Your task to perform on an android device: turn on translation in the chrome app Image 0: 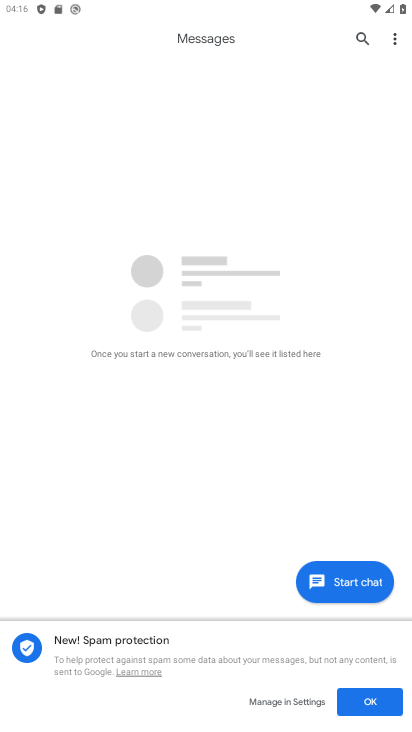
Step 0: press home button
Your task to perform on an android device: turn on translation in the chrome app Image 1: 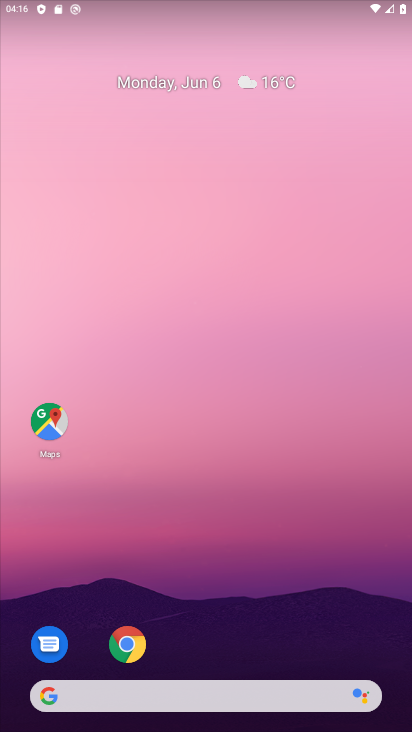
Step 1: click (130, 642)
Your task to perform on an android device: turn on translation in the chrome app Image 2: 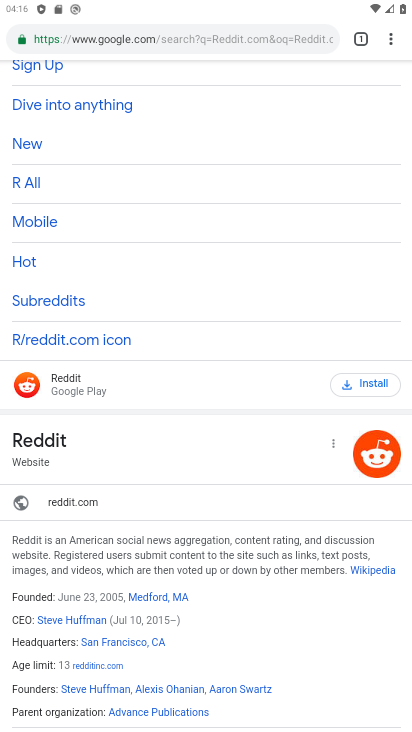
Step 2: click (392, 31)
Your task to perform on an android device: turn on translation in the chrome app Image 3: 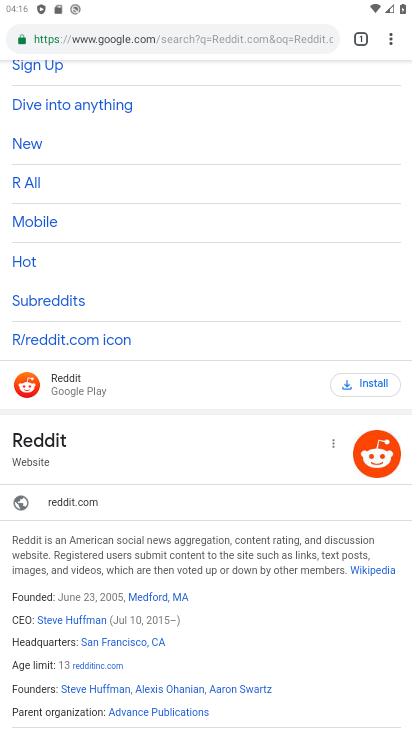
Step 3: click (392, 34)
Your task to perform on an android device: turn on translation in the chrome app Image 4: 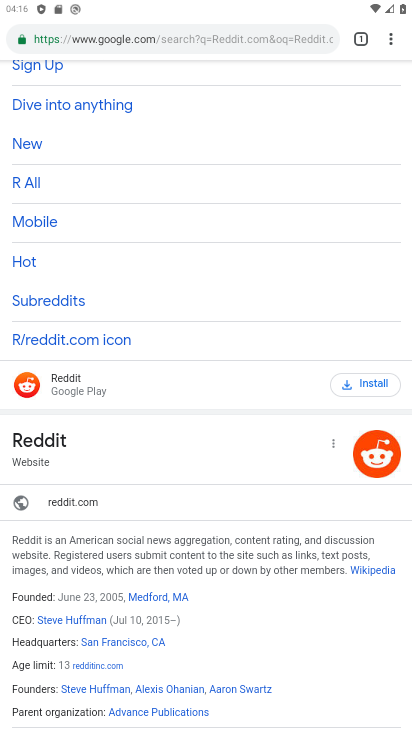
Step 4: click (391, 35)
Your task to perform on an android device: turn on translation in the chrome app Image 5: 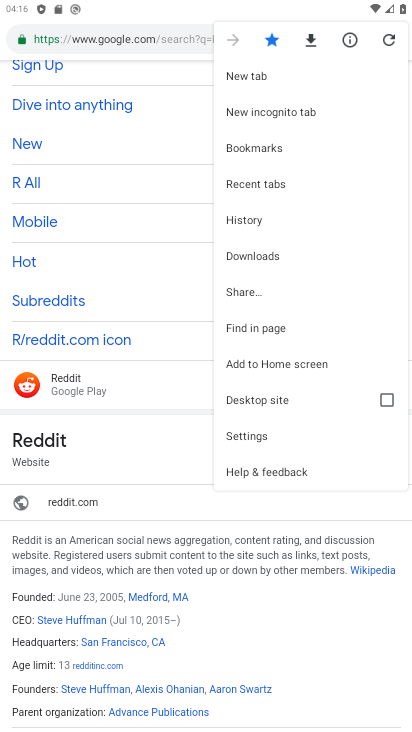
Step 5: click (247, 444)
Your task to perform on an android device: turn on translation in the chrome app Image 6: 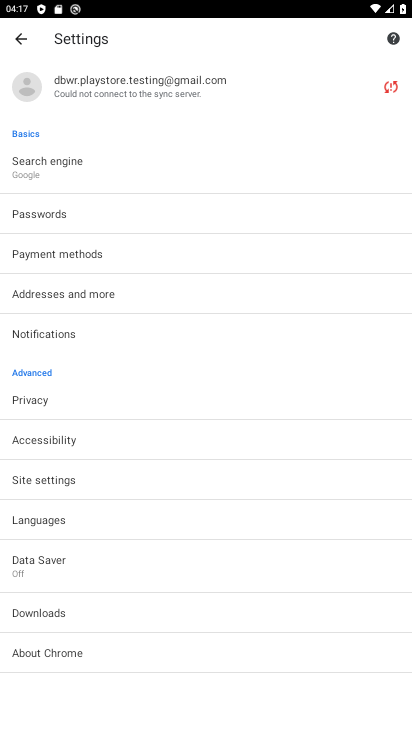
Step 6: click (53, 520)
Your task to perform on an android device: turn on translation in the chrome app Image 7: 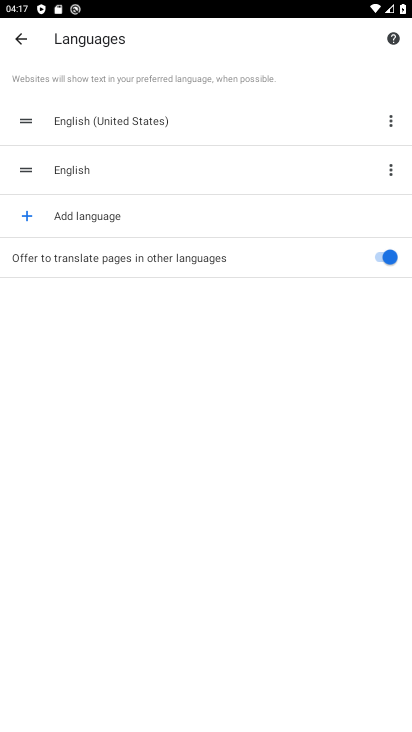
Step 7: task complete